Your task to perform on an android device: When is my next appointment? Image 0: 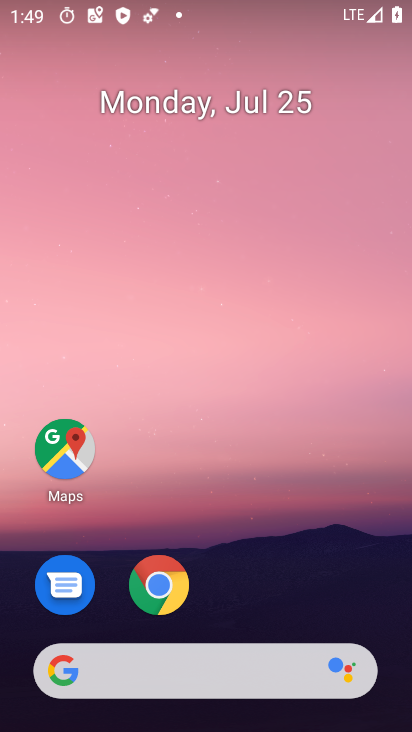
Step 0: drag from (156, 671) to (144, 257)
Your task to perform on an android device: When is my next appointment? Image 1: 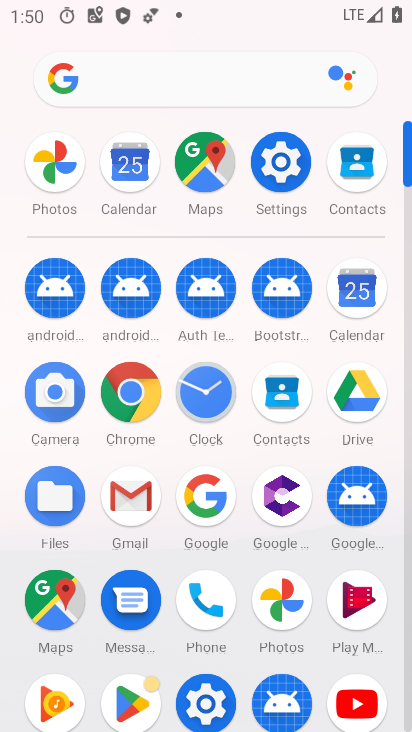
Step 1: click (354, 292)
Your task to perform on an android device: When is my next appointment? Image 2: 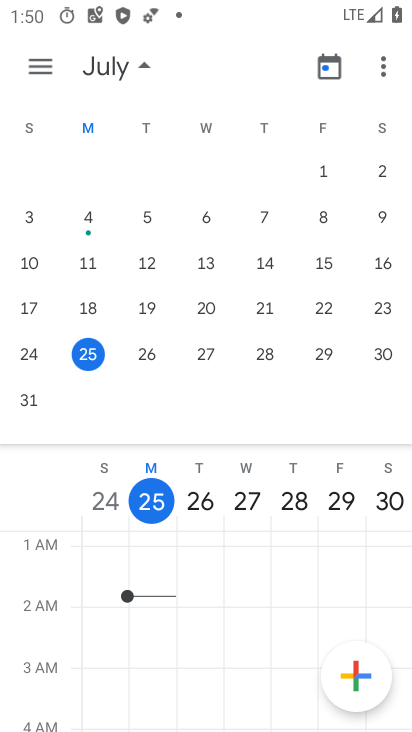
Step 2: click (135, 77)
Your task to perform on an android device: When is my next appointment? Image 3: 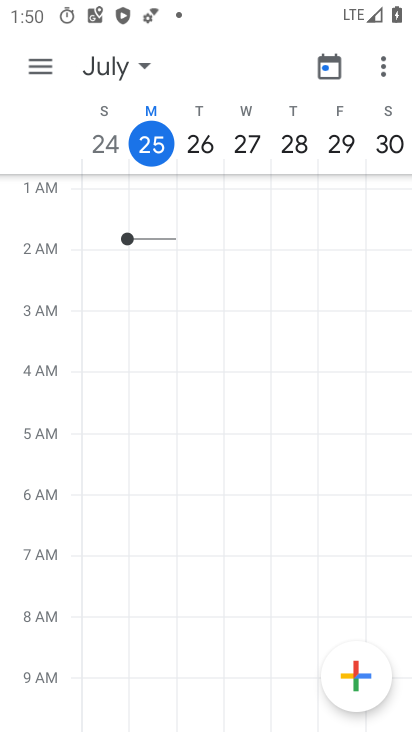
Step 3: task complete